Your task to perform on an android device: Open Chrome and go to settings Image 0: 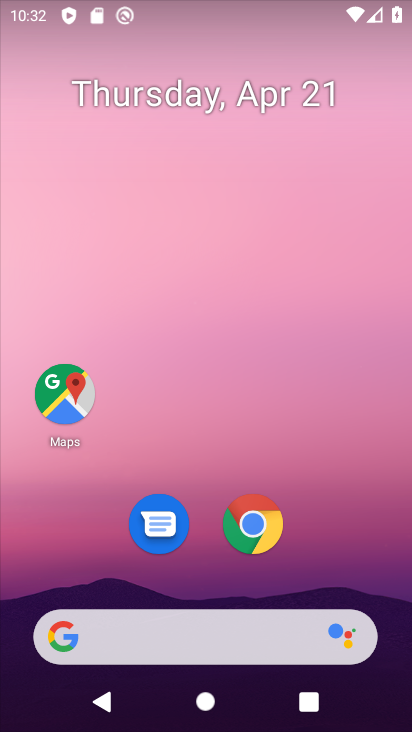
Step 0: click (264, 522)
Your task to perform on an android device: Open Chrome and go to settings Image 1: 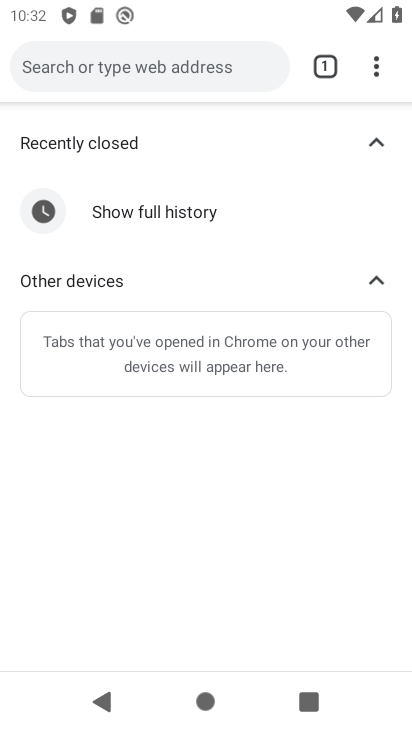
Step 1: task complete